Your task to perform on an android device: Open the stopwatch Image 0: 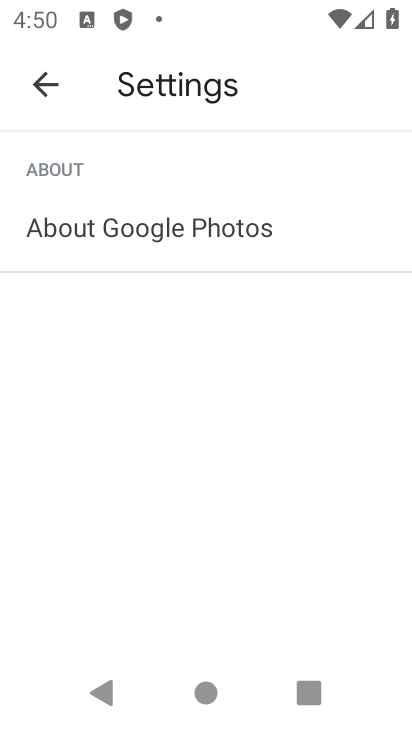
Step 0: press home button
Your task to perform on an android device: Open the stopwatch Image 1: 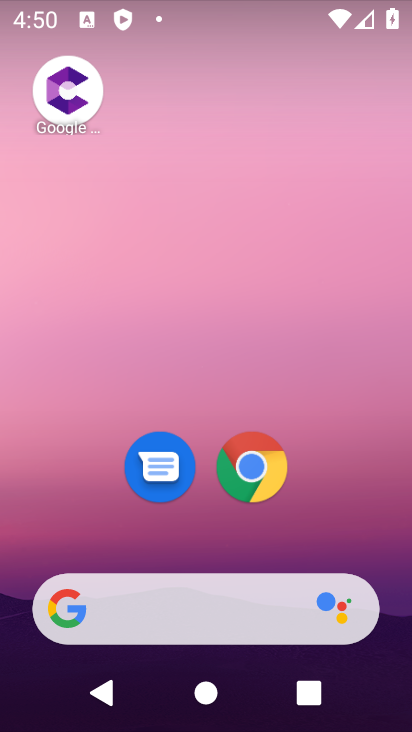
Step 1: drag from (232, 596) to (245, 11)
Your task to perform on an android device: Open the stopwatch Image 2: 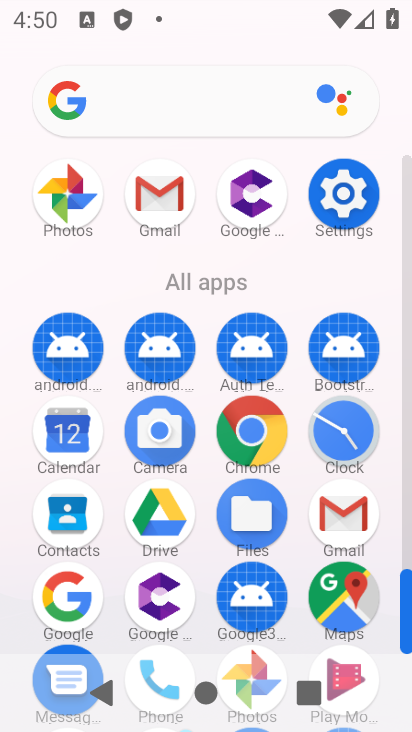
Step 2: click (350, 437)
Your task to perform on an android device: Open the stopwatch Image 3: 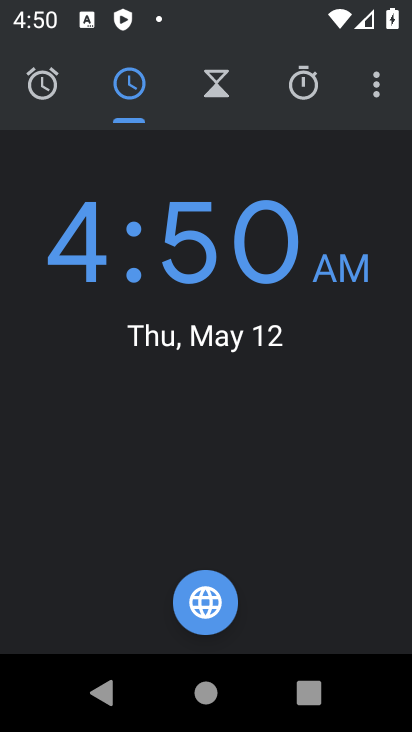
Step 3: click (293, 87)
Your task to perform on an android device: Open the stopwatch Image 4: 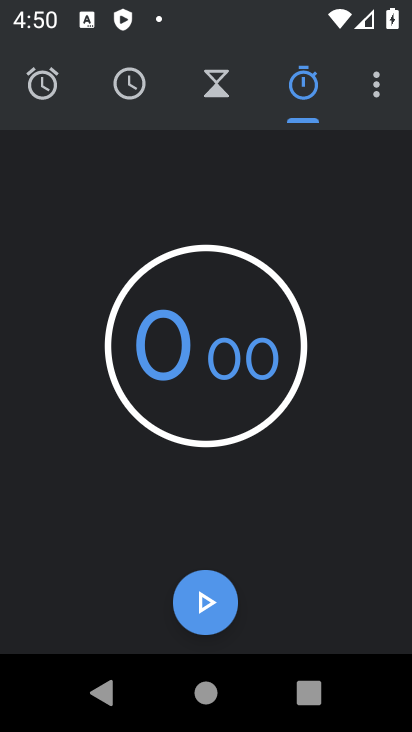
Step 4: click (193, 608)
Your task to perform on an android device: Open the stopwatch Image 5: 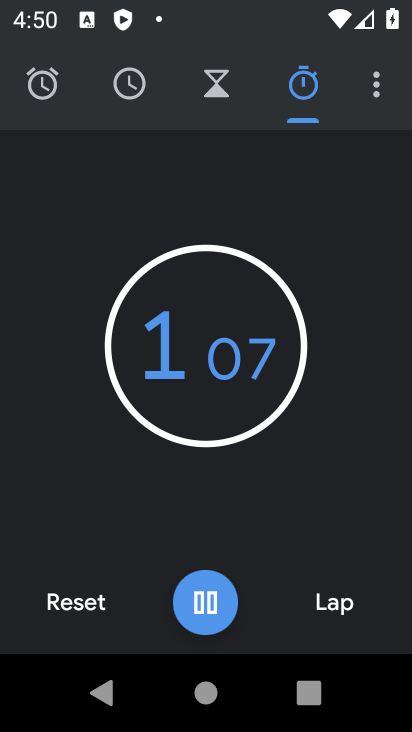
Step 5: task complete